Your task to perform on an android device: Turn on the flashlight Image 0: 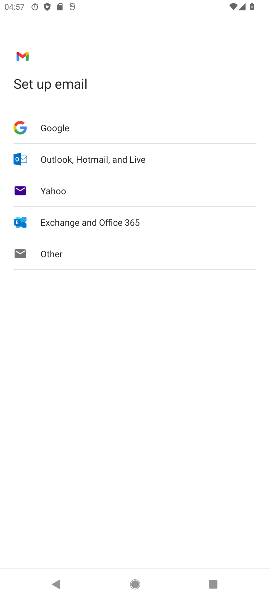
Step 0: press home button
Your task to perform on an android device: Turn on the flashlight Image 1: 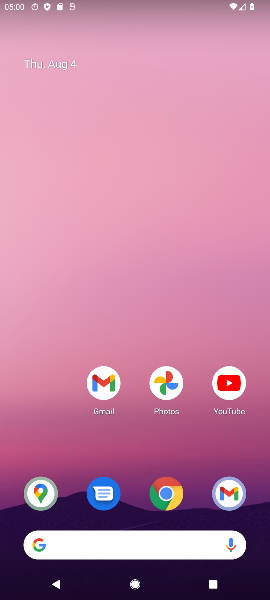
Step 1: task complete